Your task to perform on an android device: turn on the 24-hour format for clock Image 0: 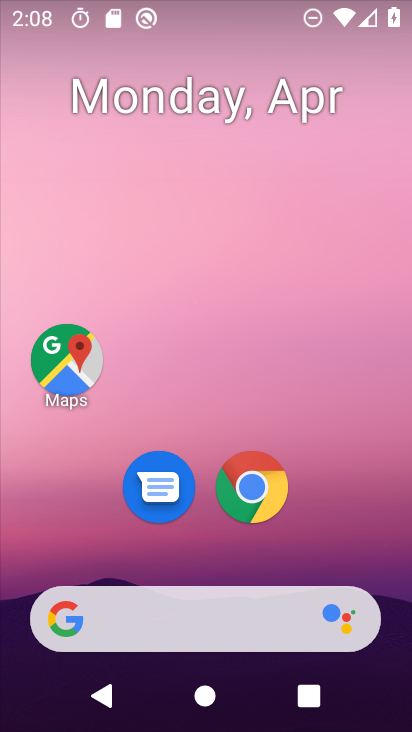
Step 0: drag from (316, 634) to (288, 167)
Your task to perform on an android device: turn on the 24-hour format for clock Image 1: 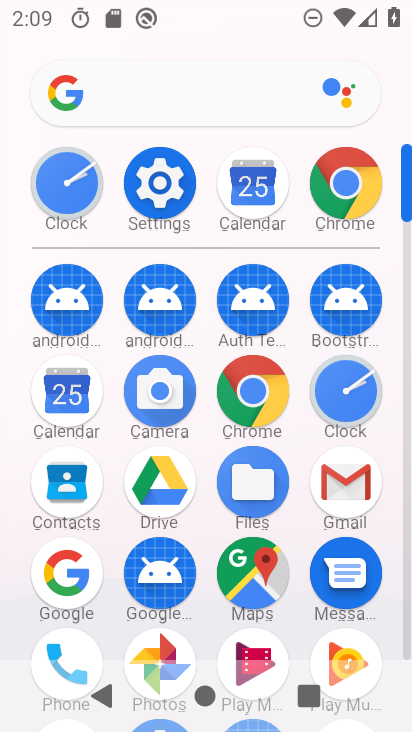
Step 1: click (83, 211)
Your task to perform on an android device: turn on the 24-hour format for clock Image 2: 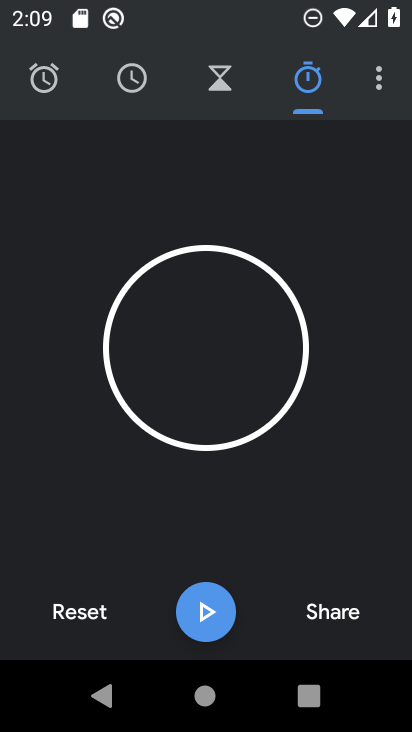
Step 2: click (378, 95)
Your task to perform on an android device: turn on the 24-hour format for clock Image 3: 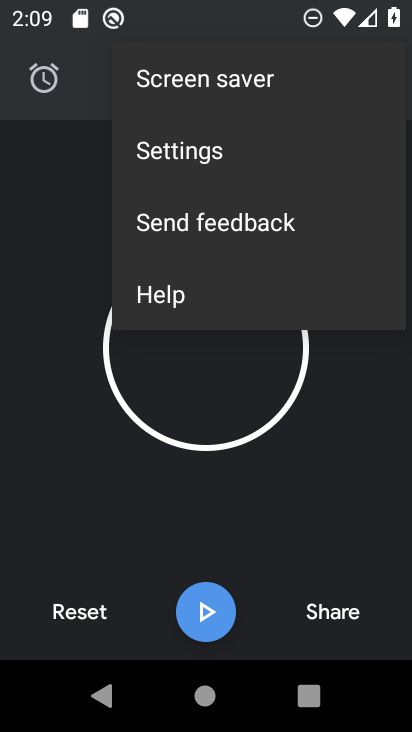
Step 3: click (247, 168)
Your task to perform on an android device: turn on the 24-hour format for clock Image 4: 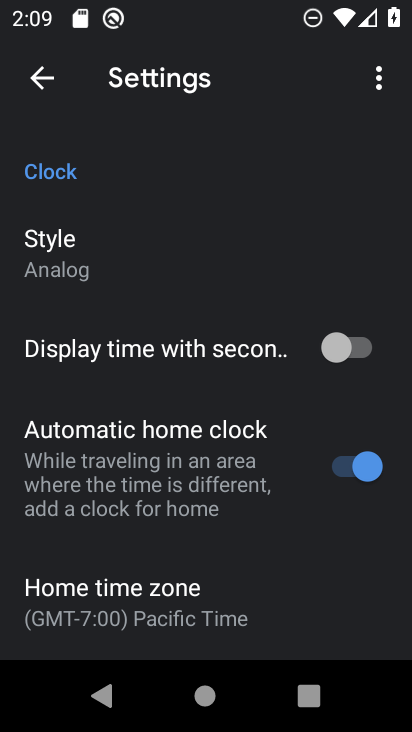
Step 4: drag from (148, 455) to (156, 184)
Your task to perform on an android device: turn on the 24-hour format for clock Image 5: 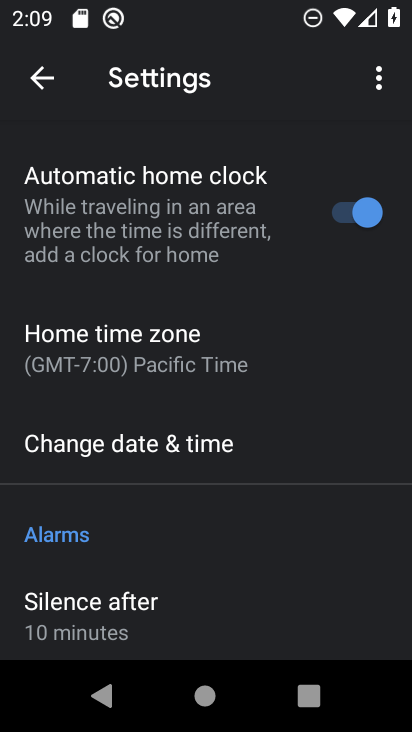
Step 5: click (218, 451)
Your task to perform on an android device: turn on the 24-hour format for clock Image 6: 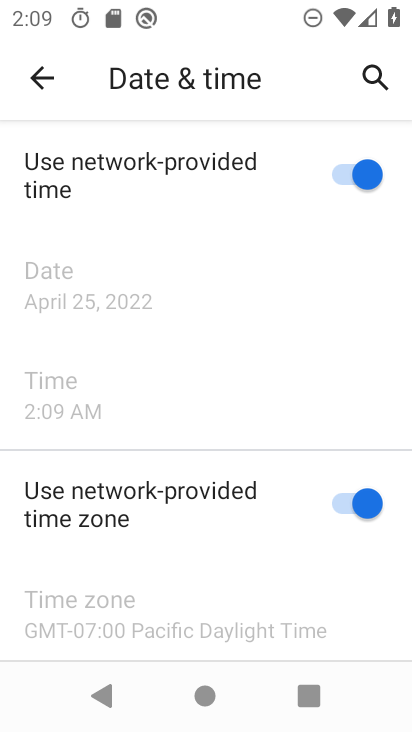
Step 6: drag from (205, 523) to (130, 85)
Your task to perform on an android device: turn on the 24-hour format for clock Image 7: 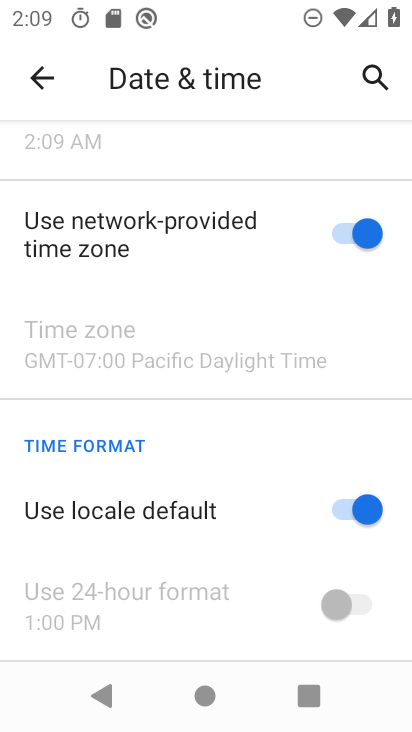
Step 7: click (343, 507)
Your task to perform on an android device: turn on the 24-hour format for clock Image 8: 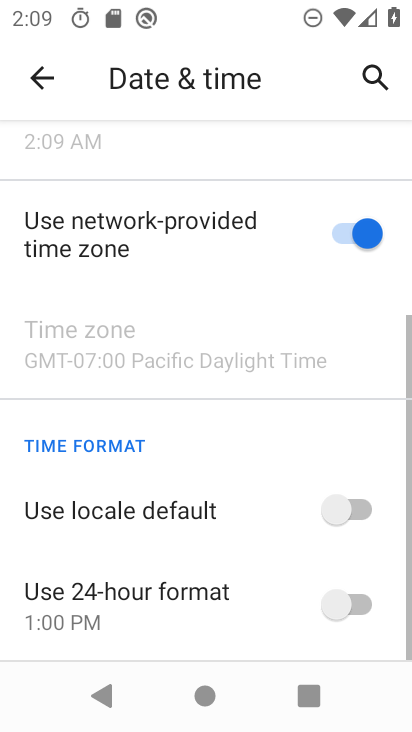
Step 8: click (361, 603)
Your task to perform on an android device: turn on the 24-hour format for clock Image 9: 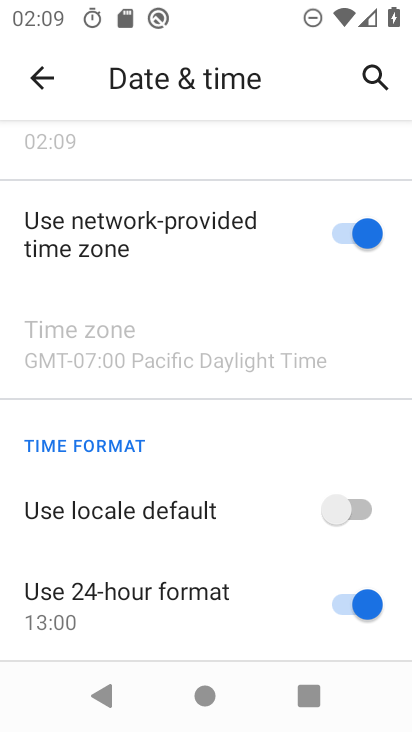
Step 9: task complete